Your task to perform on an android device: turn on javascript in the chrome app Image 0: 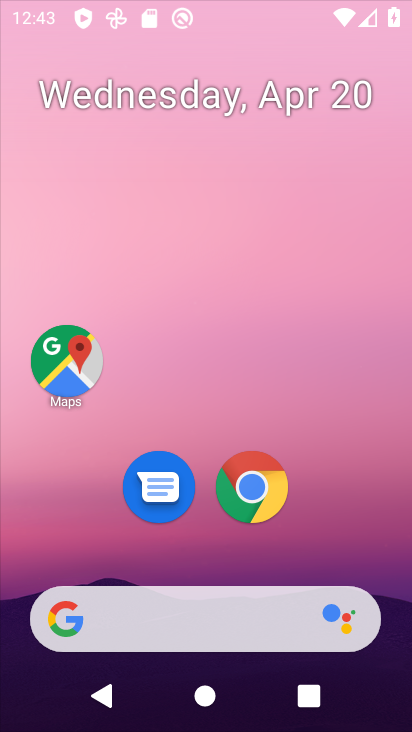
Step 0: click (273, 35)
Your task to perform on an android device: turn on javascript in the chrome app Image 1: 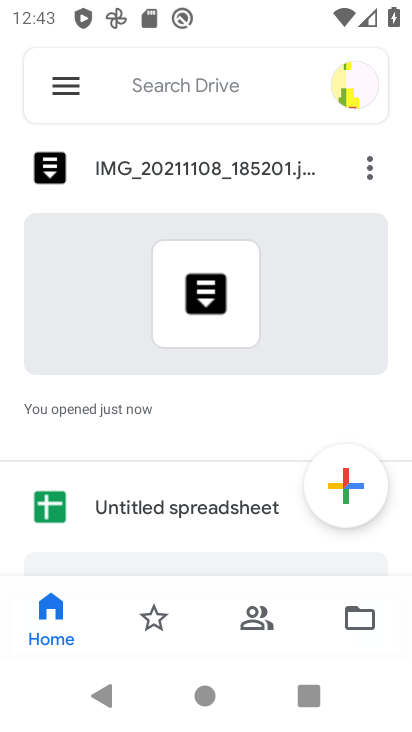
Step 1: press back button
Your task to perform on an android device: turn on javascript in the chrome app Image 2: 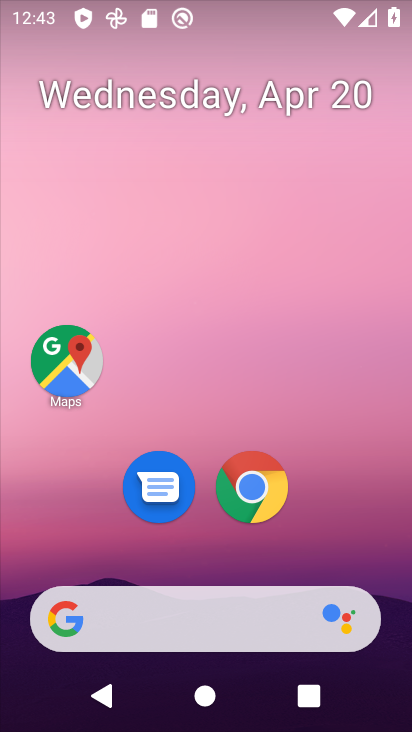
Step 2: drag from (349, 575) to (287, 56)
Your task to perform on an android device: turn on javascript in the chrome app Image 3: 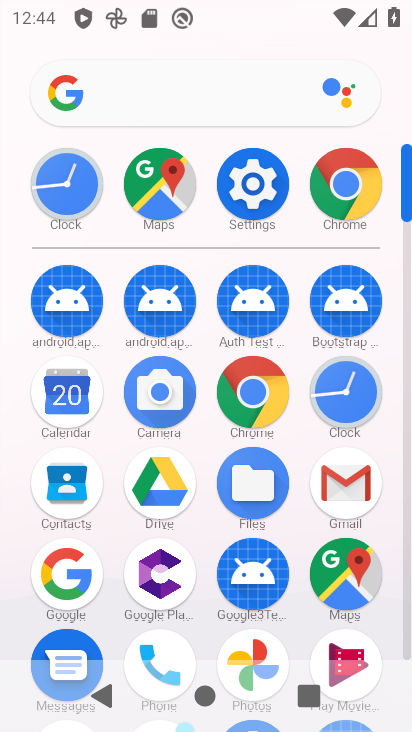
Step 3: click (342, 212)
Your task to perform on an android device: turn on javascript in the chrome app Image 4: 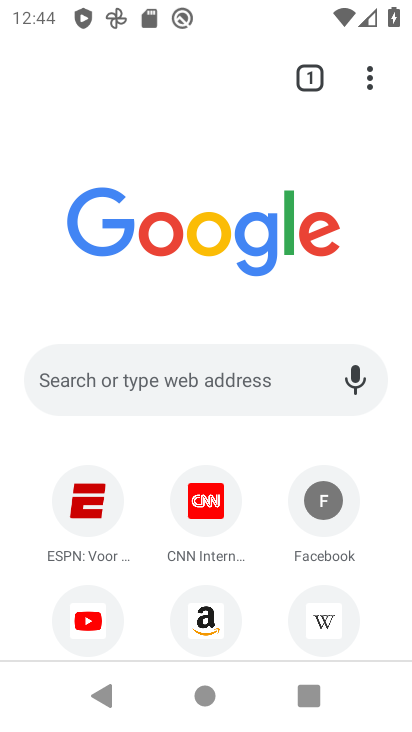
Step 4: click (363, 74)
Your task to perform on an android device: turn on javascript in the chrome app Image 5: 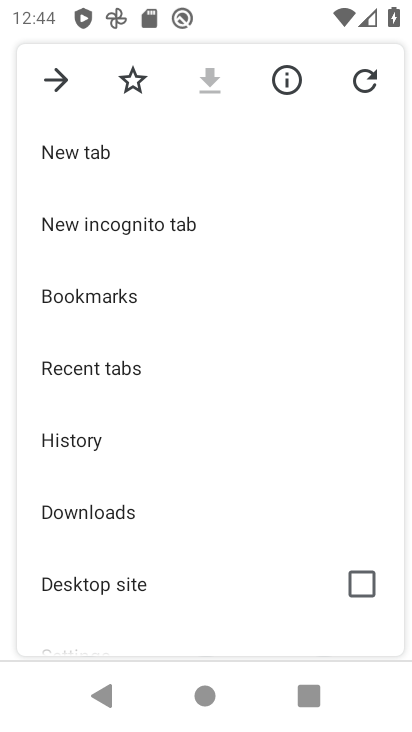
Step 5: drag from (193, 575) to (227, 323)
Your task to perform on an android device: turn on javascript in the chrome app Image 6: 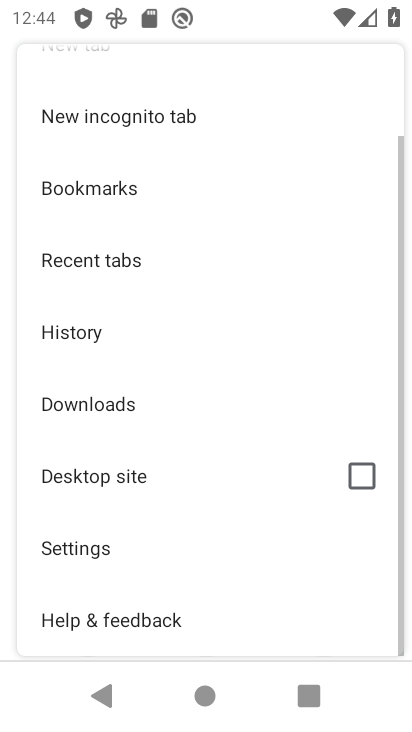
Step 6: click (159, 544)
Your task to perform on an android device: turn on javascript in the chrome app Image 7: 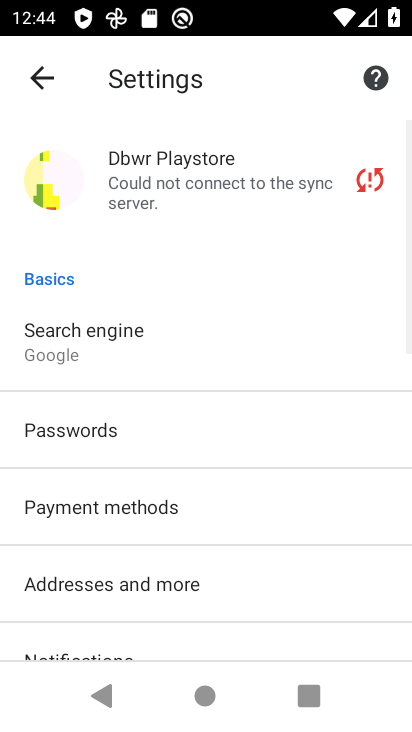
Step 7: drag from (152, 568) to (185, 286)
Your task to perform on an android device: turn on javascript in the chrome app Image 8: 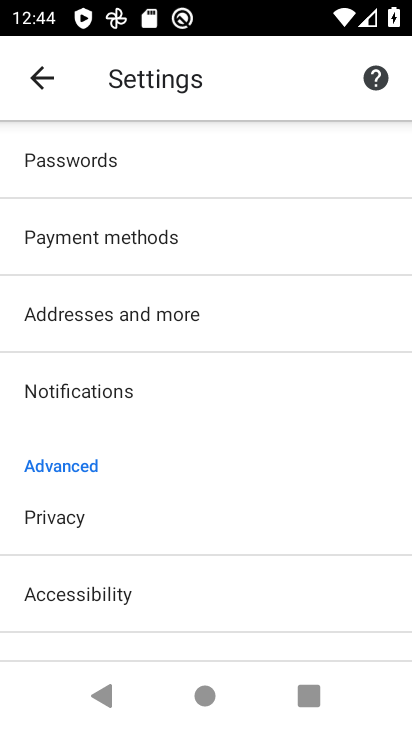
Step 8: drag from (146, 568) to (186, 274)
Your task to perform on an android device: turn on javascript in the chrome app Image 9: 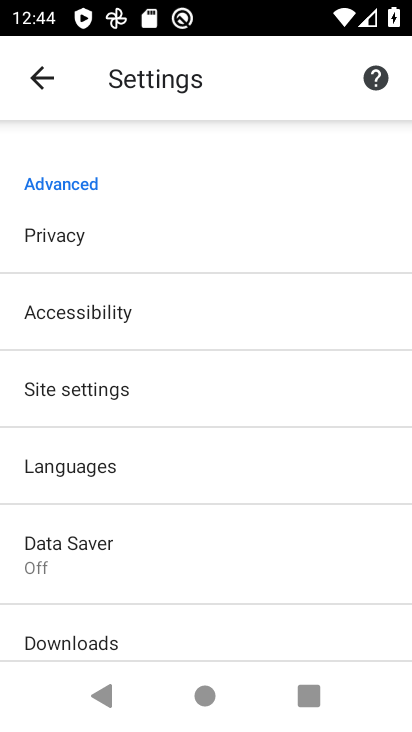
Step 9: click (160, 379)
Your task to perform on an android device: turn on javascript in the chrome app Image 10: 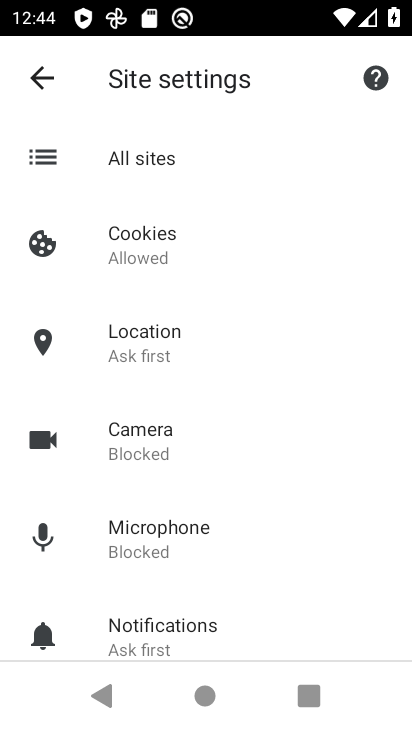
Step 10: drag from (143, 581) to (190, 307)
Your task to perform on an android device: turn on javascript in the chrome app Image 11: 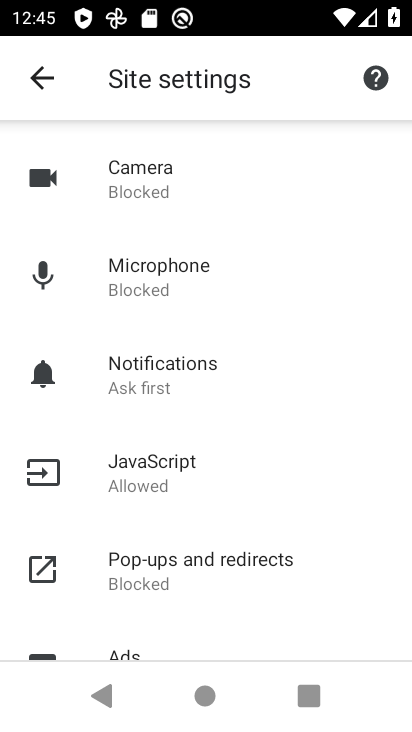
Step 11: click (183, 475)
Your task to perform on an android device: turn on javascript in the chrome app Image 12: 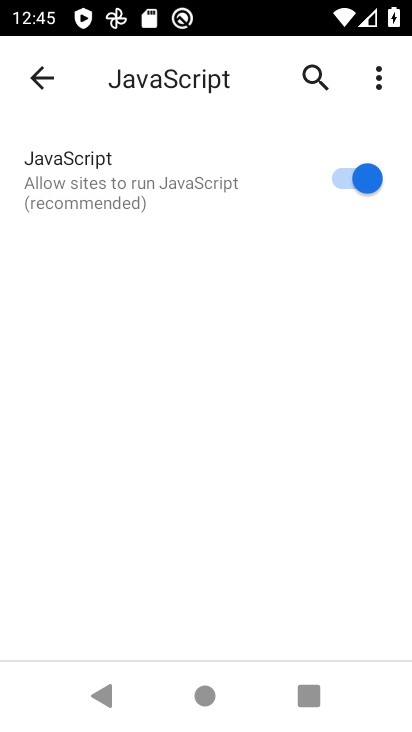
Step 12: task complete